Your task to perform on an android device: Show me productivity apps on the Play Store Image 0: 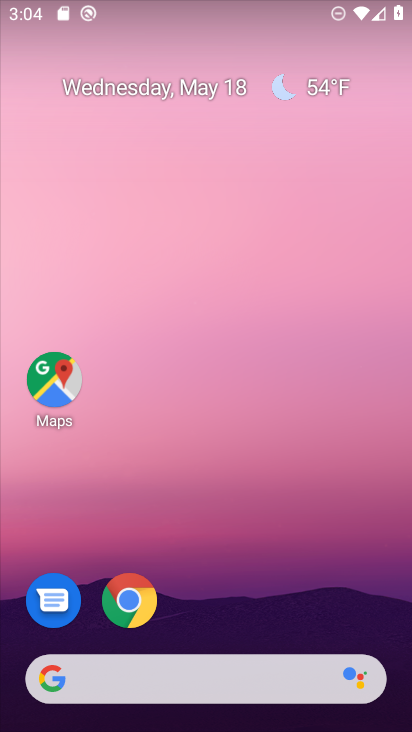
Step 0: drag from (200, 606) to (318, 11)
Your task to perform on an android device: Show me productivity apps on the Play Store Image 1: 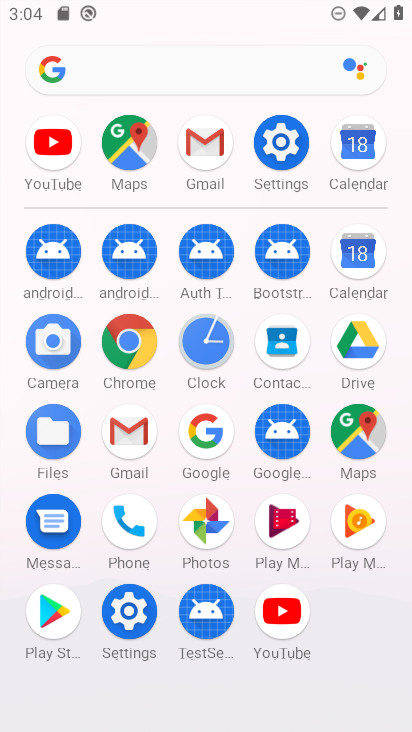
Step 1: click (68, 625)
Your task to perform on an android device: Show me productivity apps on the Play Store Image 2: 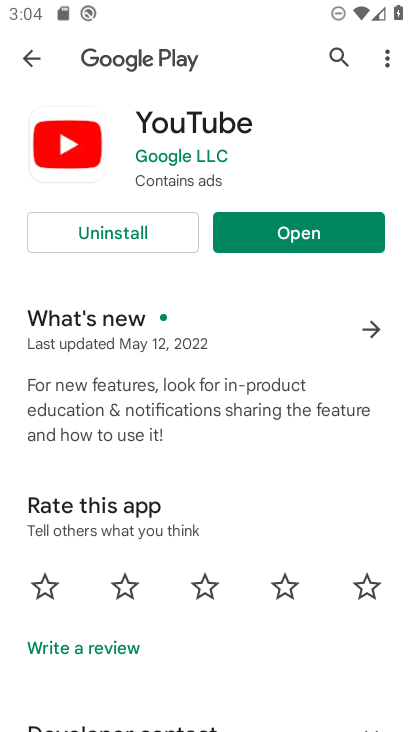
Step 2: click (38, 58)
Your task to perform on an android device: Show me productivity apps on the Play Store Image 3: 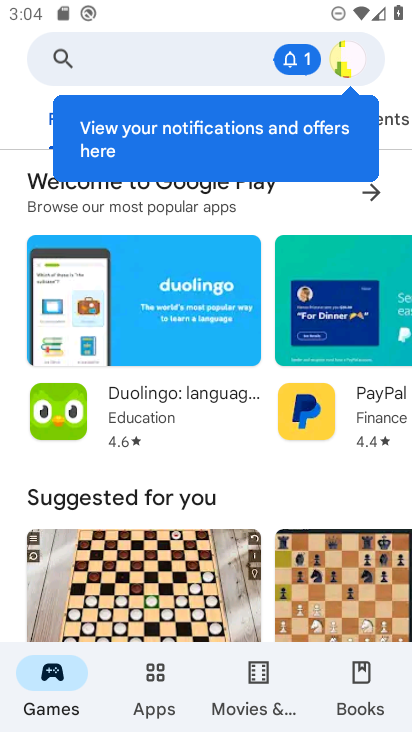
Step 3: click (162, 687)
Your task to perform on an android device: Show me productivity apps on the Play Store Image 4: 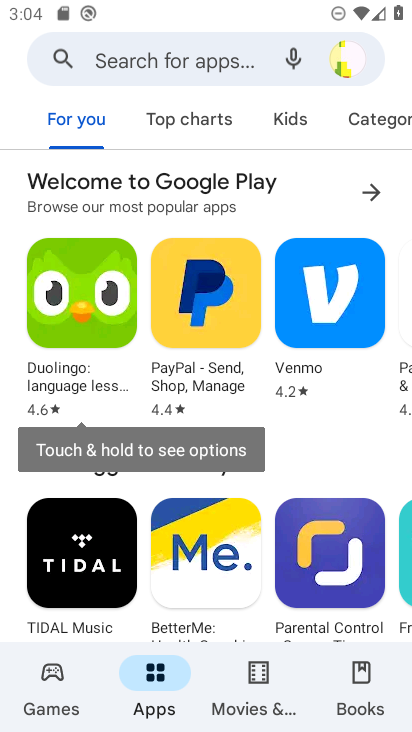
Step 4: click (381, 116)
Your task to perform on an android device: Show me productivity apps on the Play Store Image 5: 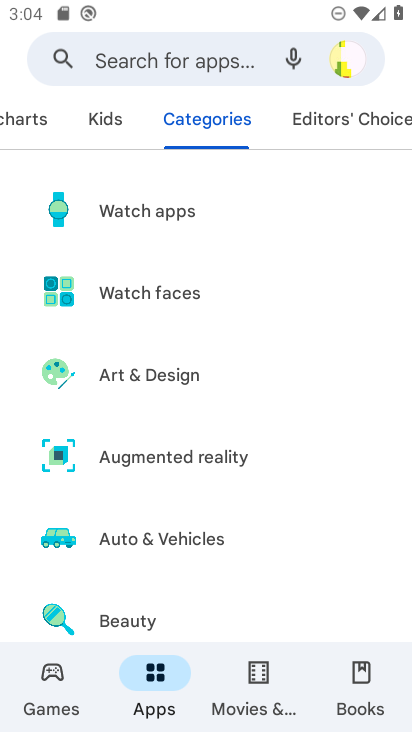
Step 5: drag from (121, 533) to (225, 18)
Your task to perform on an android device: Show me productivity apps on the Play Store Image 6: 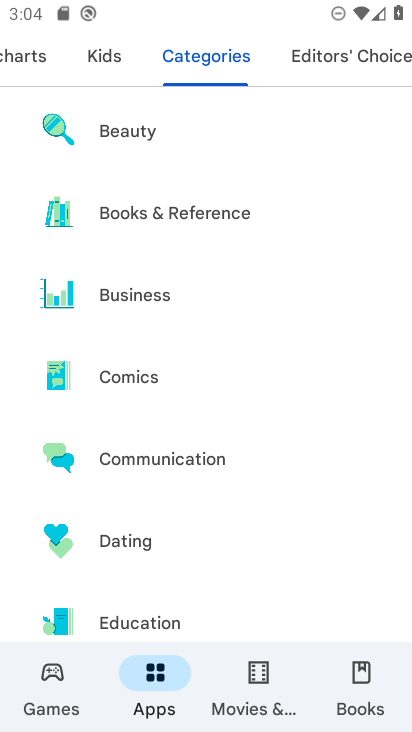
Step 6: drag from (136, 497) to (174, 242)
Your task to perform on an android device: Show me productivity apps on the Play Store Image 7: 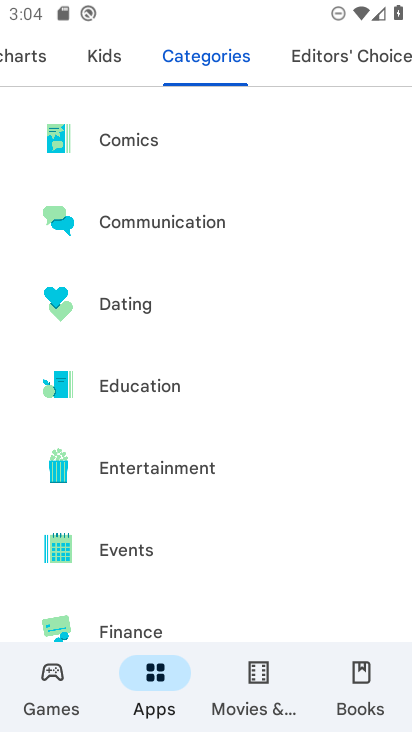
Step 7: drag from (160, 495) to (204, 277)
Your task to perform on an android device: Show me productivity apps on the Play Store Image 8: 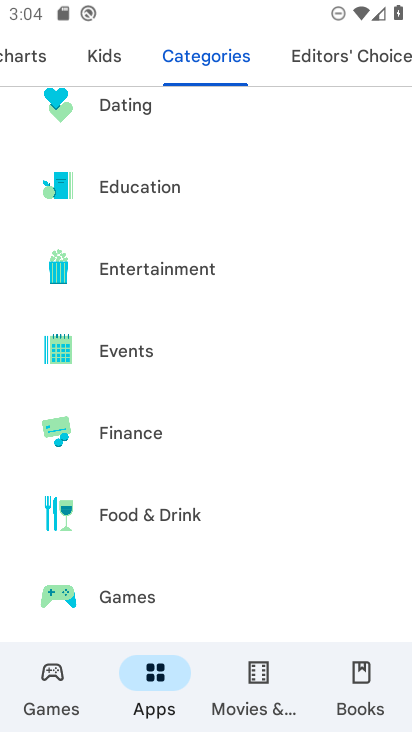
Step 8: drag from (122, 546) to (182, 206)
Your task to perform on an android device: Show me productivity apps on the Play Store Image 9: 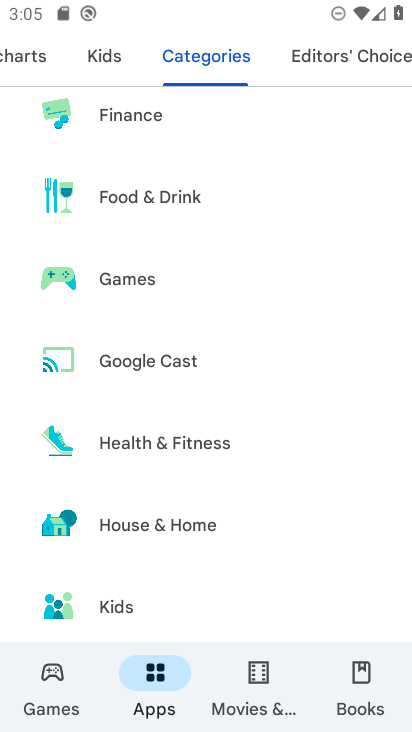
Step 9: drag from (176, 518) to (126, 265)
Your task to perform on an android device: Show me productivity apps on the Play Store Image 10: 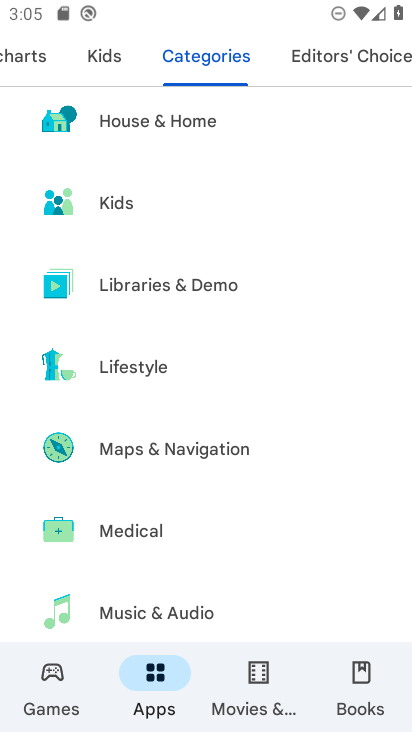
Step 10: drag from (130, 602) to (212, 86)
Your task to perform on an android device: Show me productivity apps on the Play Store Image 11: 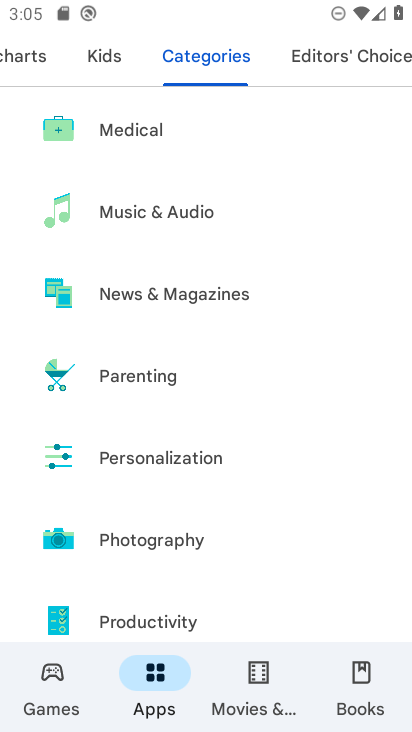
Step 11: drag from (202, 578) to (233, 350)
Your task to perform on an android device: Show me productivity apps on the Play Store Image 12: 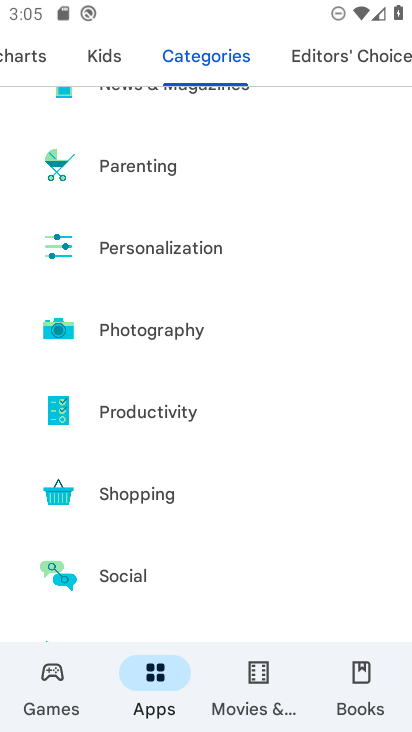
Step 12: click (172, 415)
Your task to perform on an android device: Show me productivity apps on the Play Store Image 13: 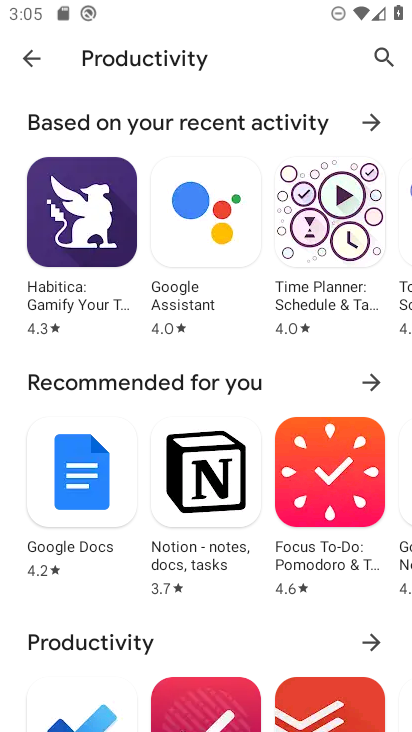
Step 13: task complete